Your task to perform on an android device: When is my next appointment? Image 0: 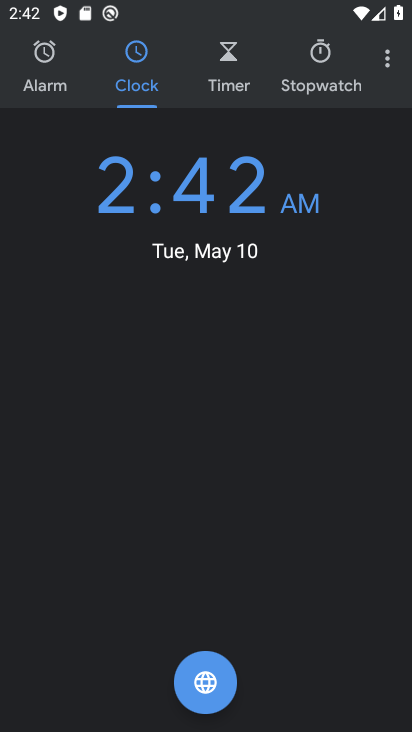
Step 0: press home button
Your task to perform on an android device: When is my next appointment? Image 1: 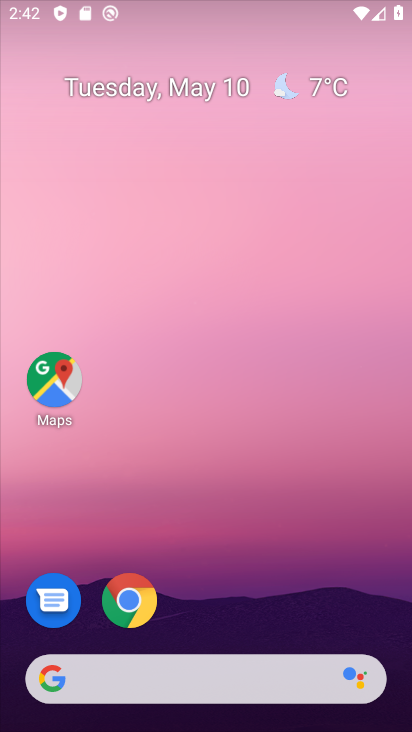
Step 1: drag from (192, 673) to (175, 109)
Your task to perform on an android device: When is my next appointment? Image 2: 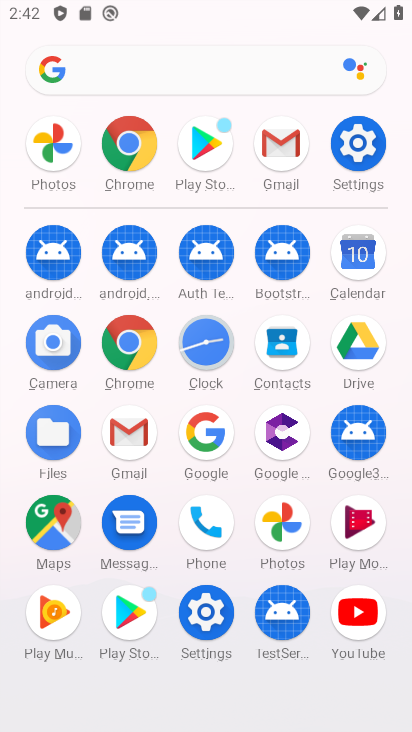
Step 2: click (361, 253)
Your task to perform on an android device: When is my next appointment? Image 3: 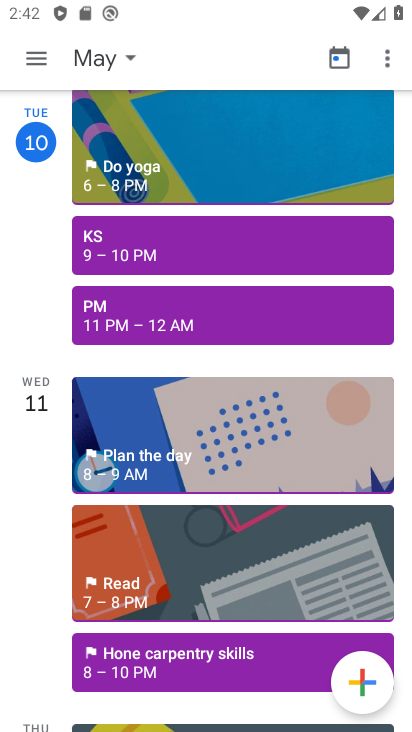
Step 3: task complete